Your task to perform on an android device: turn pop-ups off in chrome Image 0: 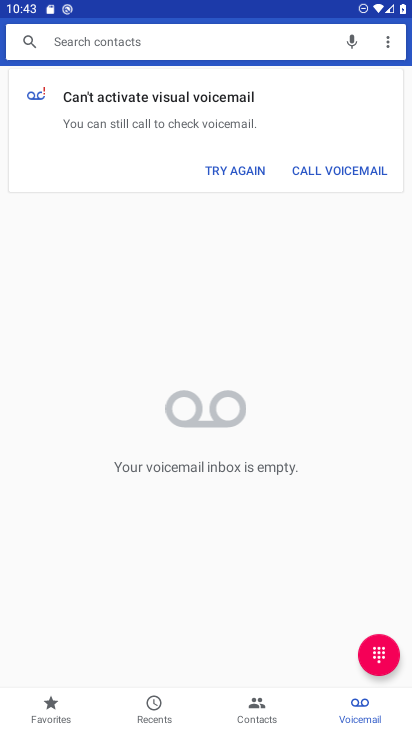
Step 0: press back button
Your task to perform on an android device: turn pop-ups off in chrome Image 1: 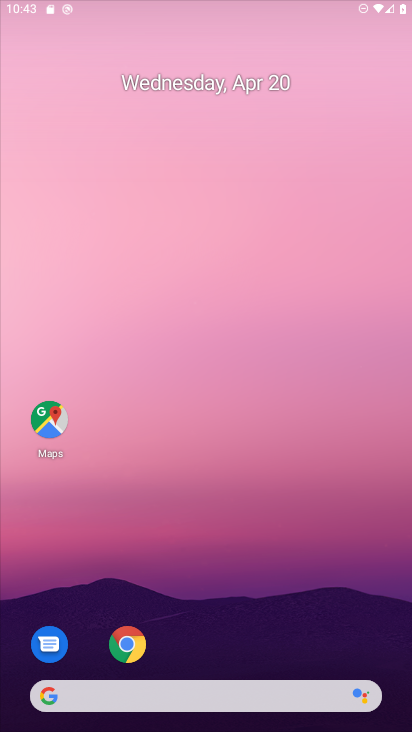
Step 1: drag from (337, 622) to (214, 115)
Your task to perform on an android device: turn pop-ups off in chrome Image 2: 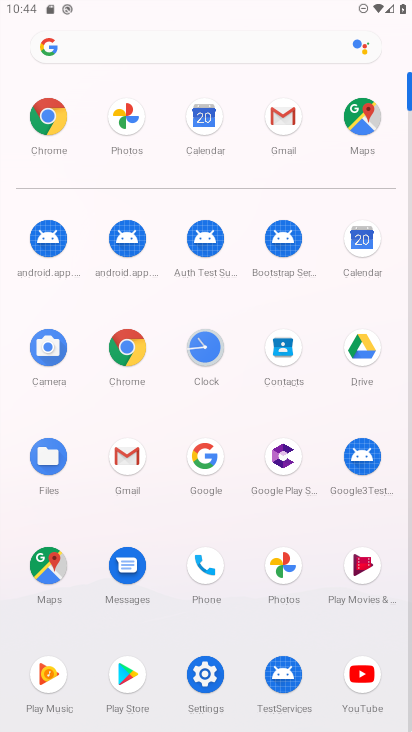
Step 2: click (134, 338)
Your task to perform on an android device: turn pop-ups off in chrome Image 3: 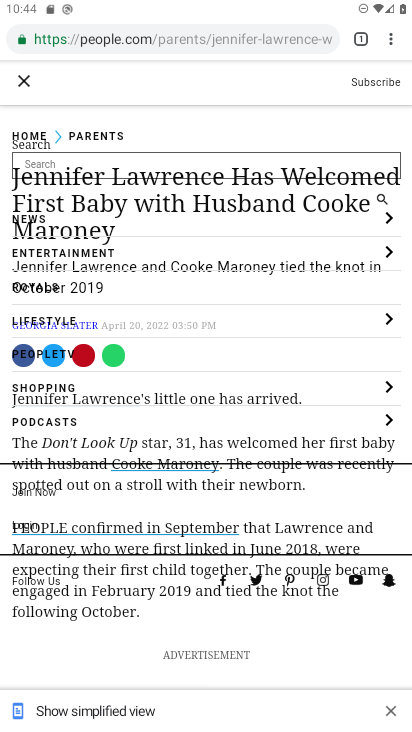
Step 3: press back button
Your task to perform on an android device: turn pop-ups off in chrome Image 4: 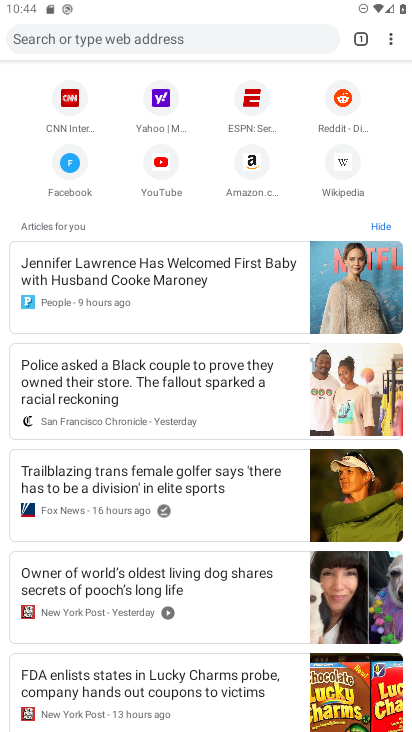
Step 4: click (391, 35)
Your task to perform on an android device: turn pop-ups off in chrome Image 5: 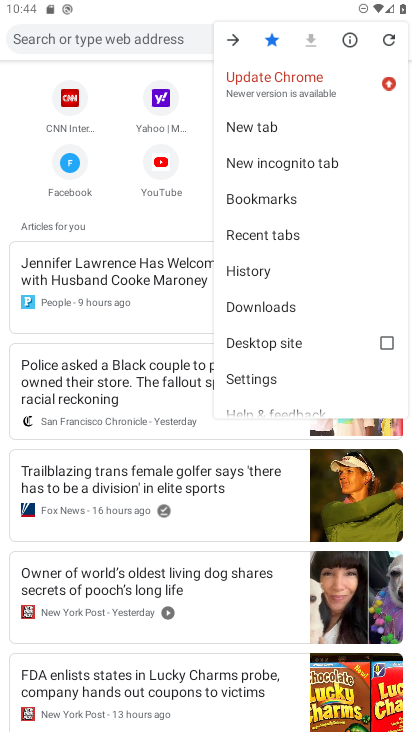
Step 5: click (263, 380)
Your task to perform on an android device: turn pop-ups off in chrome Image 6: 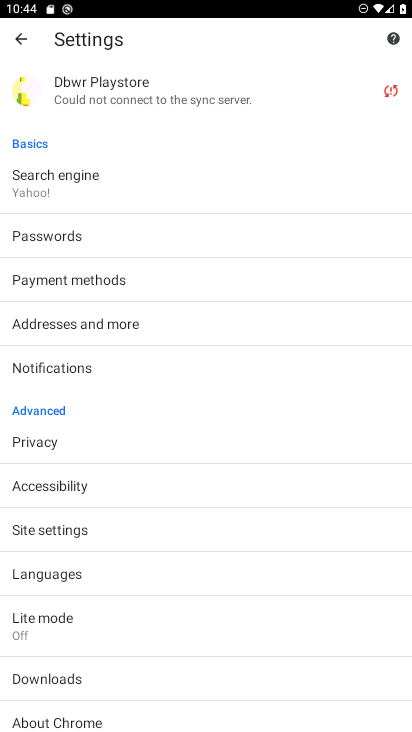
Step 6: click (208, 539)
Your task to perform on an android device: turn pop-ups off in chrome Image 7: 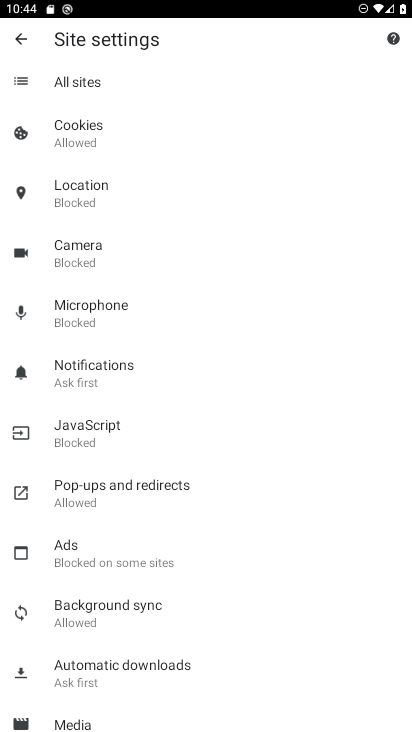
Step 7: click (119, 487)
Your task to perform on an android device: turn pop-ups off in chrome Image 8: 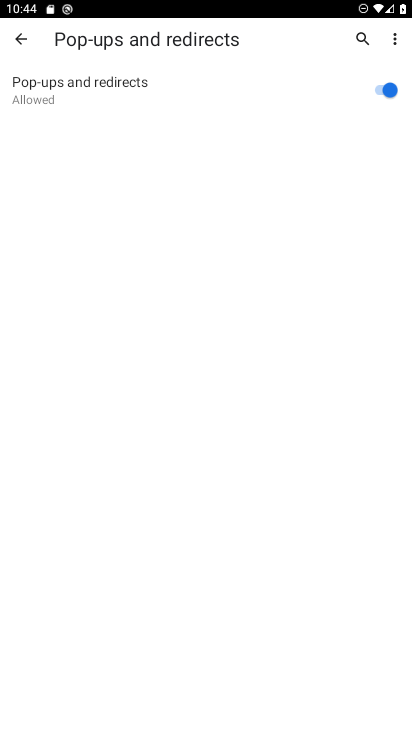
Step 8: click (373, 91)
Your task to perform on an android device: turn pop-ups off in chrome Image 9: 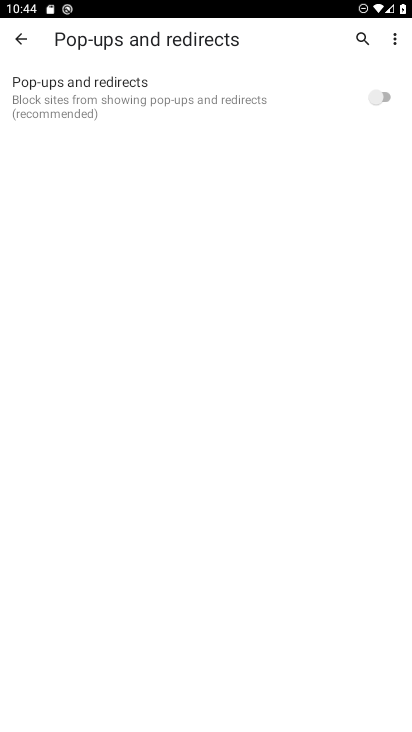
Step 9: task complete